Your task to perform on an android device: toggle improve location accuracy Image 0: 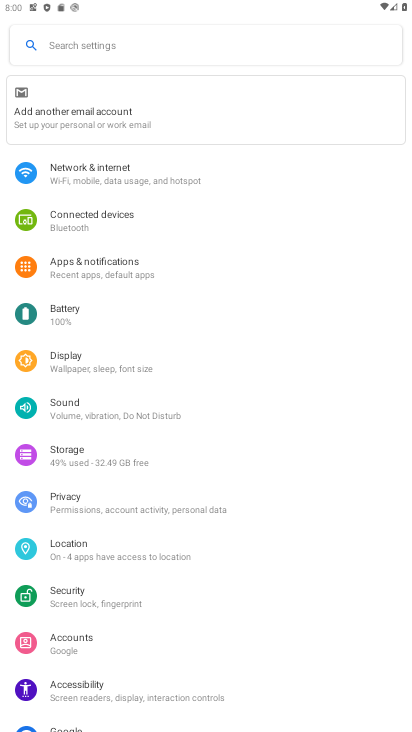
Step 0: click (91, 545)
Your task to perform on an android device: toggle improve location accuracy Image 1: 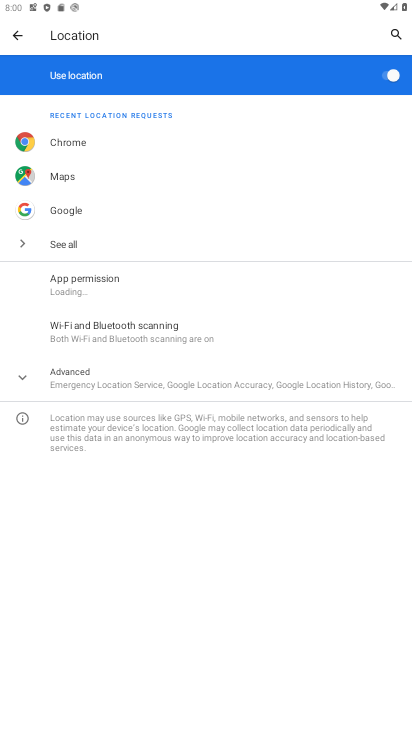
Step 1: click (91, 387)
Your task to perform on an android device: toggle improve location accuracy Image 2: 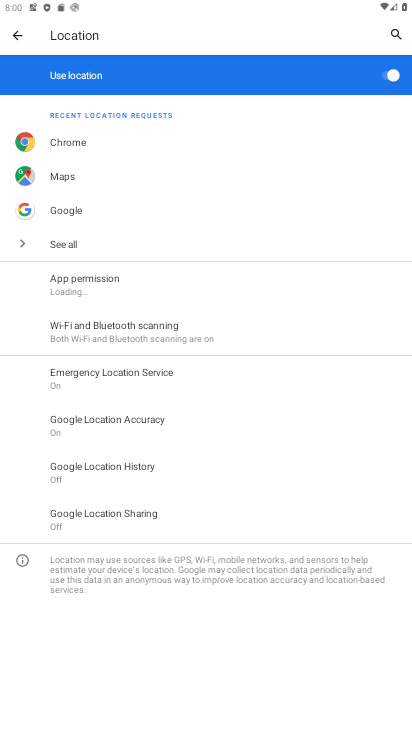
Step 2: click (106, 418)
Your task to perform on an android device: toggle improve location accuracy Image 3: 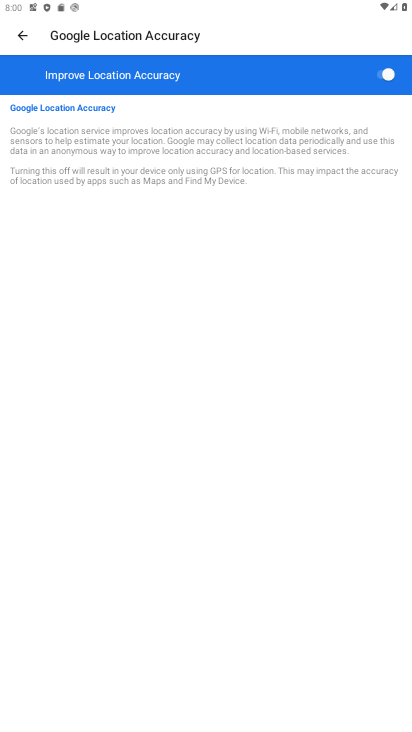
Step 3: click (380, 74)
Your task to perform on an android device: toggle improve location accuracy Image 4: 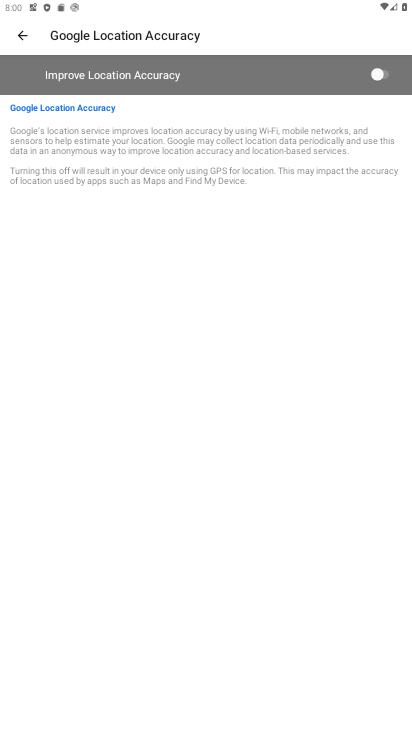
Step 4: task complete